Your task to perform on an android device: Is it going to rain today? Image 0: 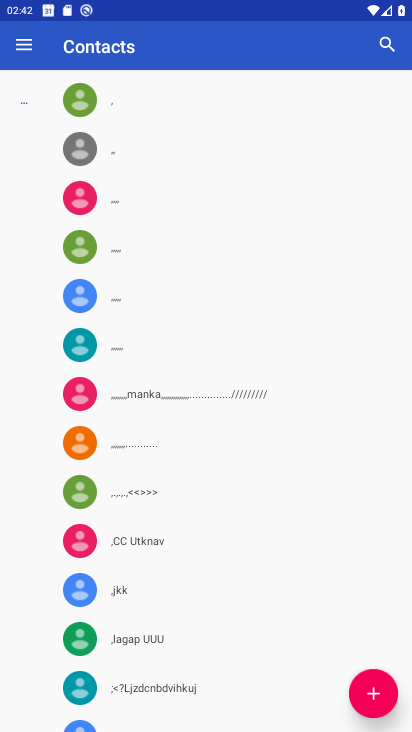
Step 0: press home button
Your task to perform on an android device: Is it going to rain today? Image 1: 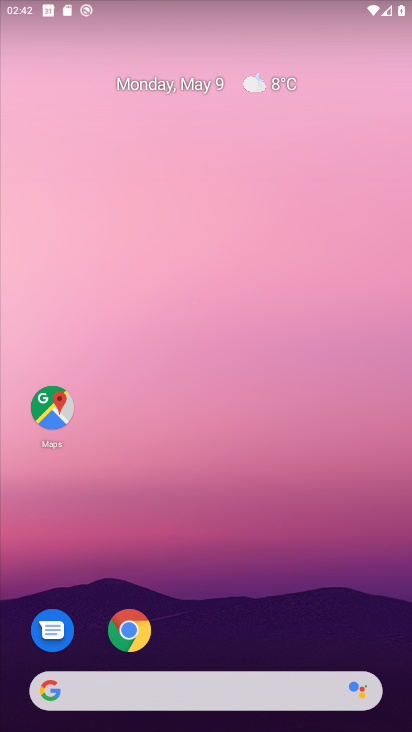
Step 1: click (280, 71)
Your task to perform on an android device: Is it going to rain today? Image 2: 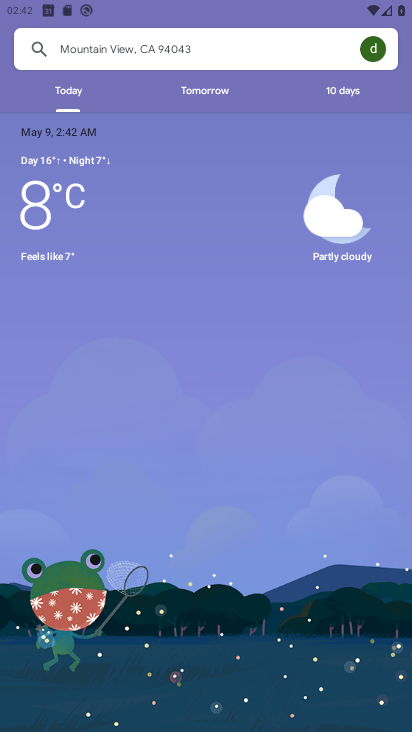
Step 2: task complete